Your task to perform on an android device: change the clock display to digital Image 0: 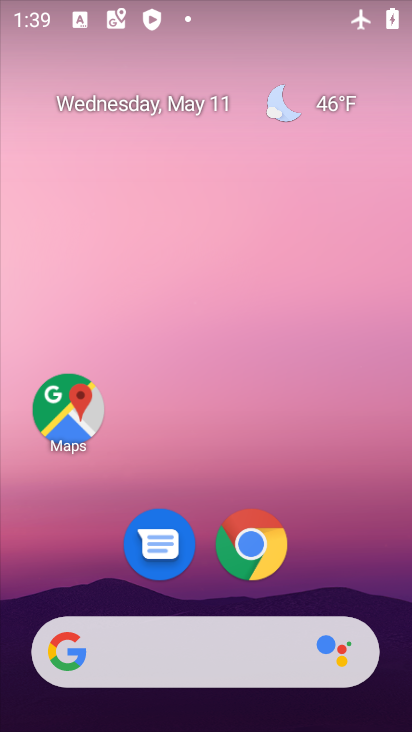
Step 0: drag from (391, 637) to (284, 47)
Your task to perform on an android device: change the clock display to digital Image 1: 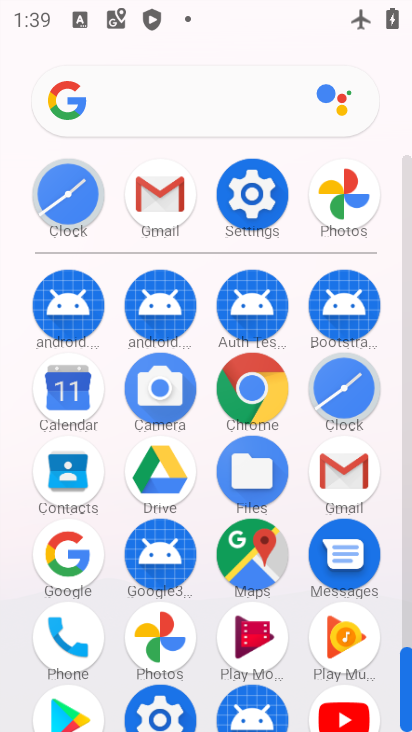
Step 1: click (406, 613)
Your task to perform on an android device: change the clock display to digital Image 2: 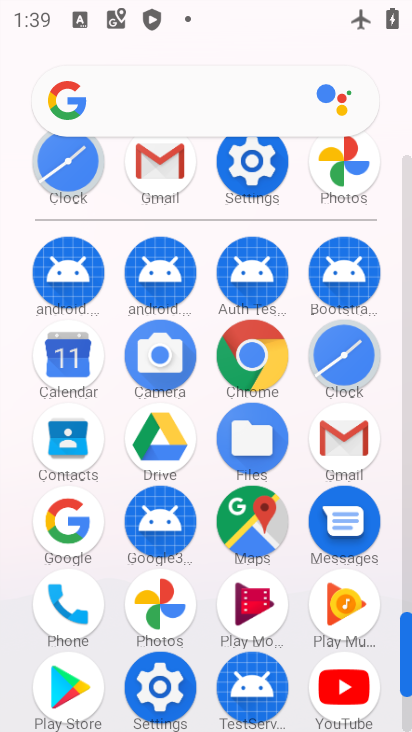
Step 2: click (341, 354)
Your task to perform on an android device: change the clock display to digital Image 3: 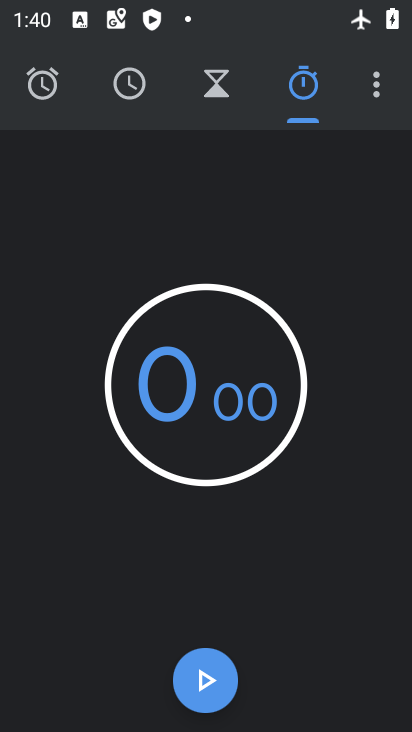
Step 3: click (377, 99)
Your task to perform on an android device: change the clock display to digital Image 4: 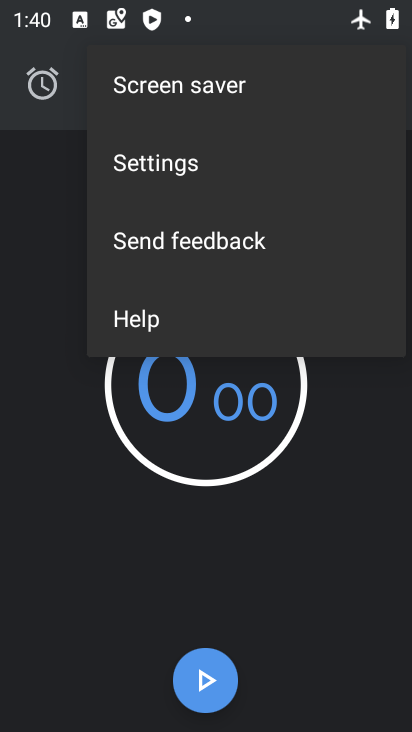
Step 4: click (147, 160)
Your task to perform on an android device: change the clock display to digital Image 5: 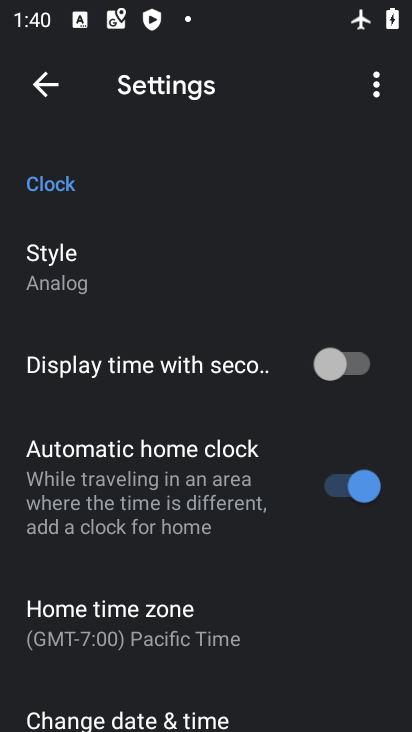
Step 5: click (44, 276)
Your task to perform on an android device: change the clock display to digital Image 6: 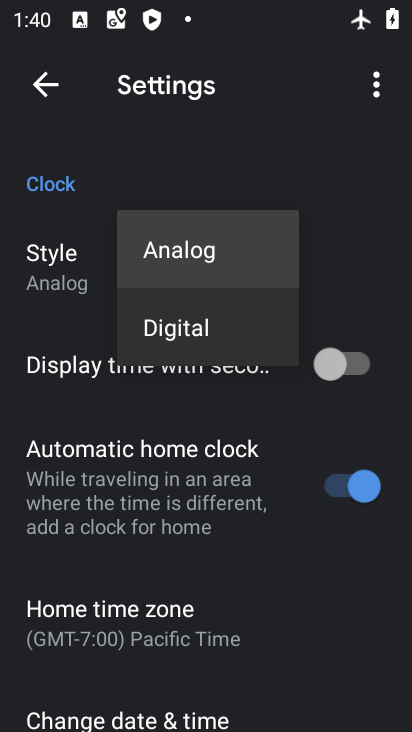
Step 6: click (170, 324)
Your task to perform on an android device: change the clock display to digital Image 7: 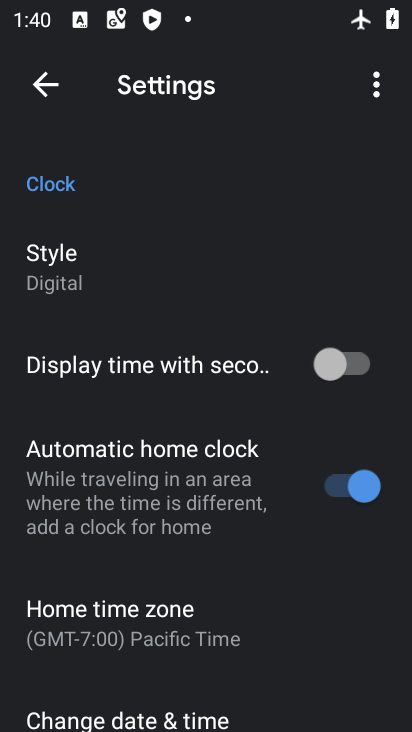
Step 7: task complete